Your task to perform on an android device: Open location settings Image 0: 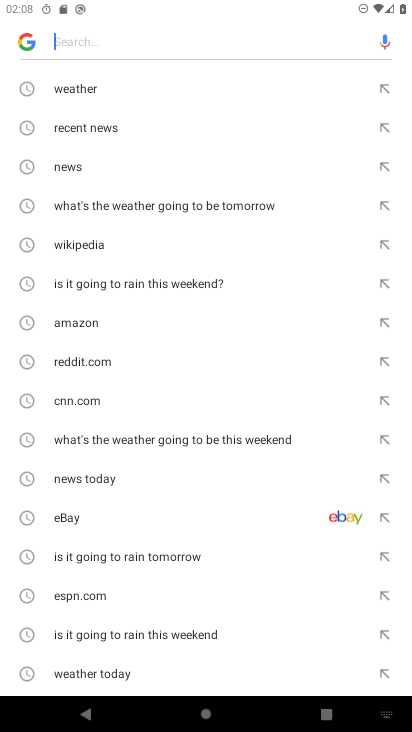
Step 0: press home button
Your task to perform on an android device: Open location settings Image 1: 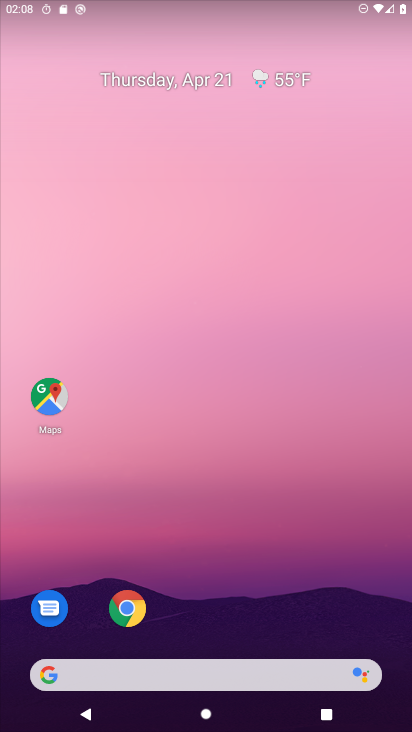
Step 1: drag from (182, 452) to (127, 37)
Your task to perform on an android device: Open location settings Image 2: 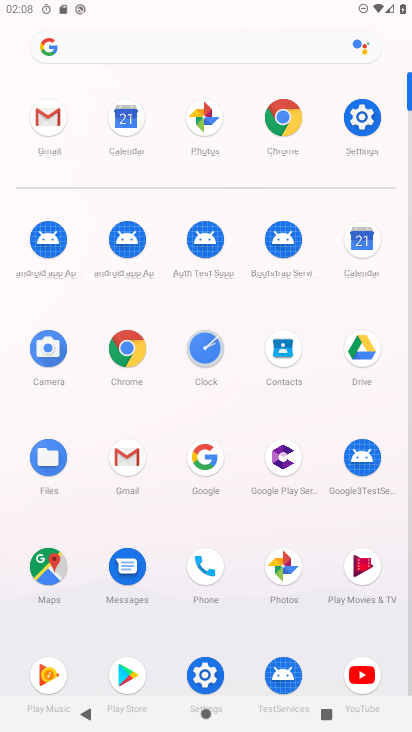
Step 2: click (365, 123)
Your task to perform on an android device: Open location settings Image 3: 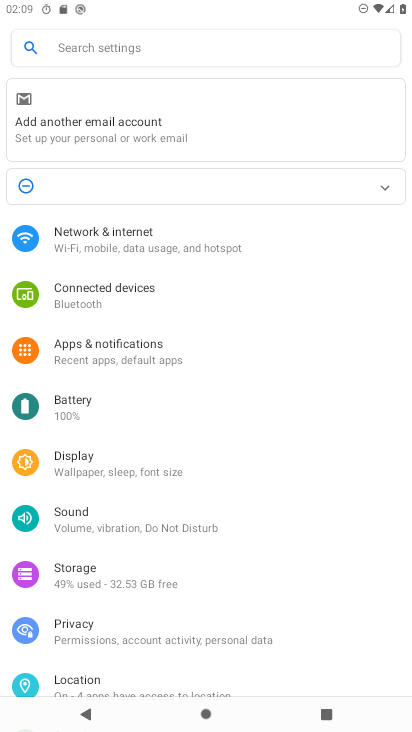
Step 3: click (74, 676)
Your task to perform on an android device: Open location settings Image 4: 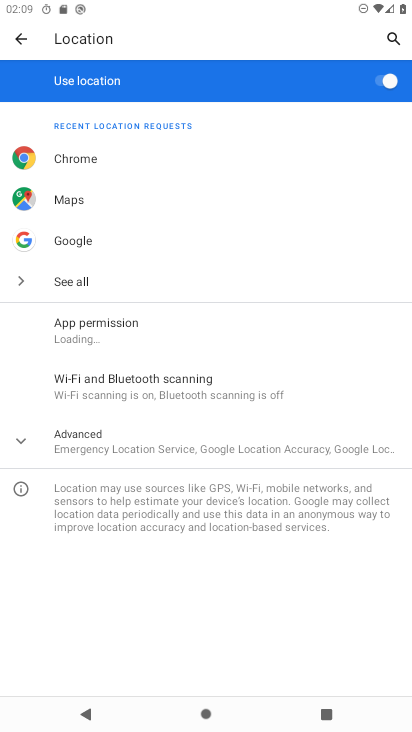
Step 4: click (56, 445)
Your task to perform on an android device: Open location settings Image 5: 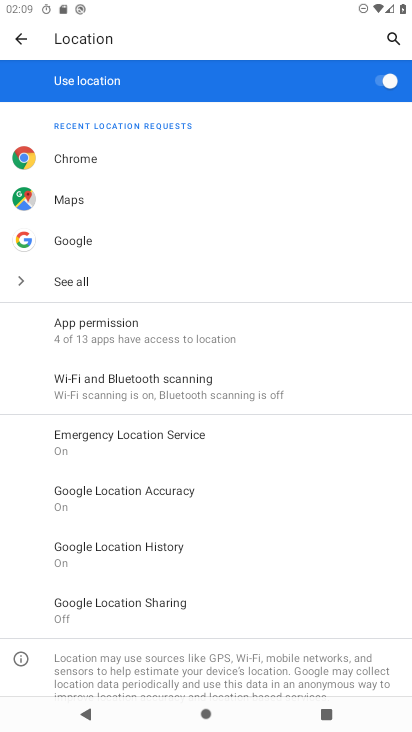
Step 5: task complete